Your task to perform on an android device: Empty the shopping cart on amazon. Search for dell alienware on amazon, select the first entry, and add it to the cart. Image 0: 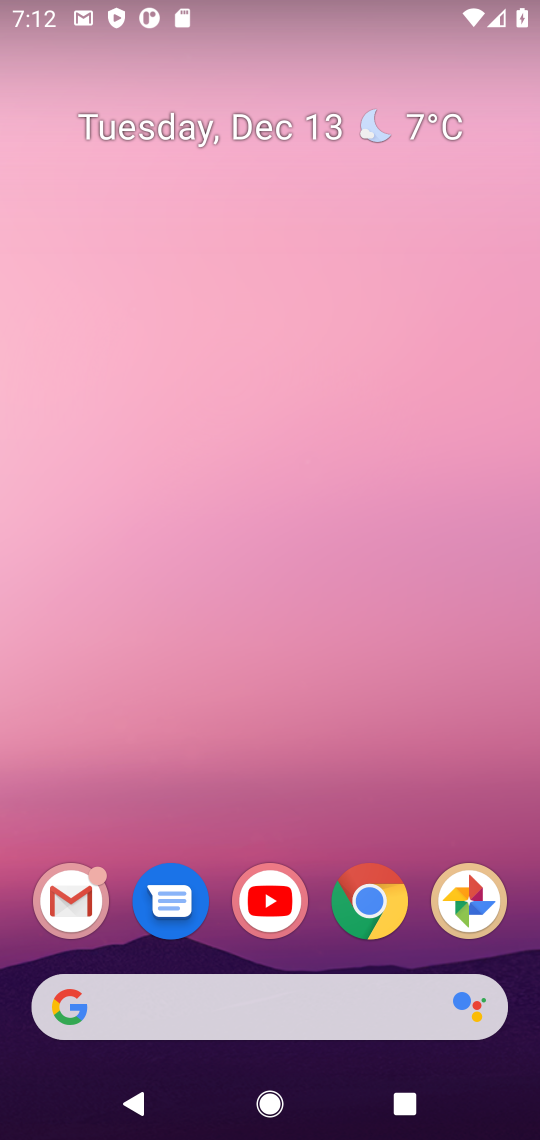
Step 0: click (374, 909)
Your task to perform on an android device: Empty the shopping cart on amazon. Search for dell alienware on amazon, select the first entry, and add it to the cart. Image 1: 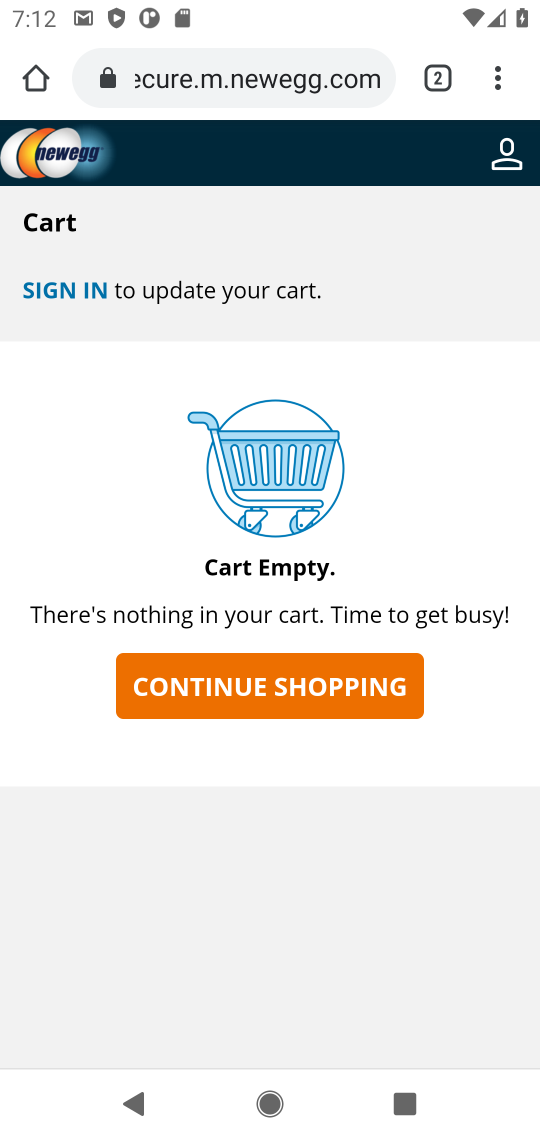
Step 1: click (440, 78)
Your task to perform on an android device: Empty the shopping cart on amazon. Search for dell alienware on amazon, select the first entry, and add it to the cart. Image 2: 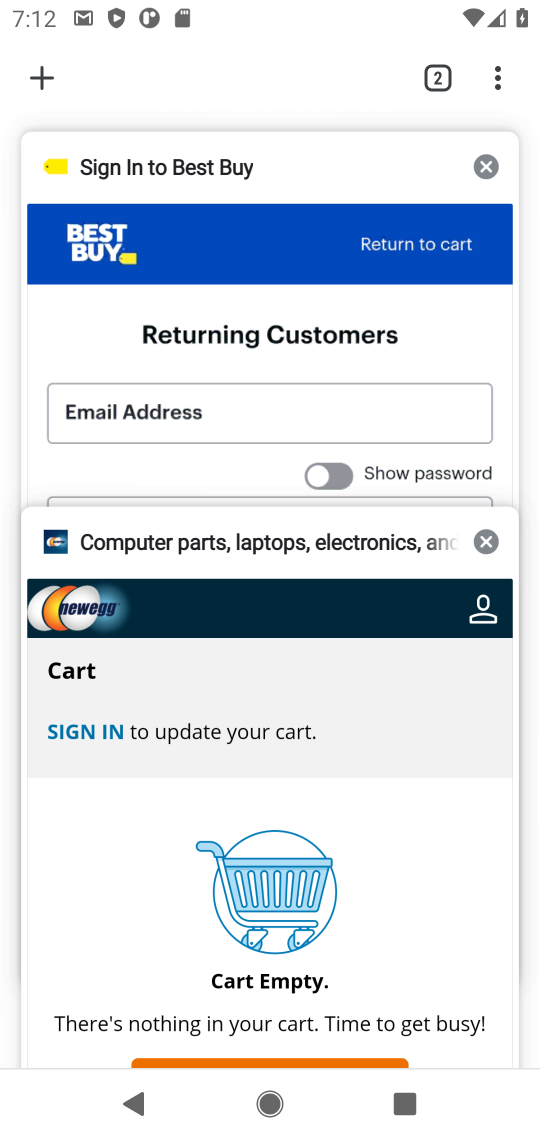
Step 2: click (30, 77)
Your task to perform on an android device: Empty the shopping cart on amazon. Search for dell alienware on amazon, select the first entry, and add it to the cart. Image 3: 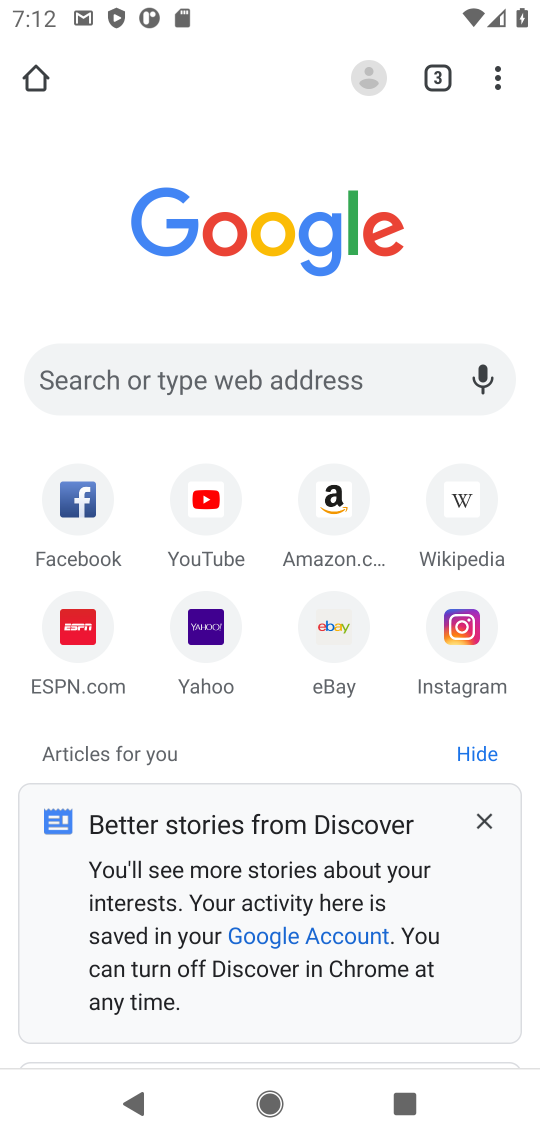
Step 3: click (324, 501)
Your task to perform on an android device: Empty the shopping cart on amazon. Search for dell alienware on amazon, select the first entry, and add it to the cart. Image 4: 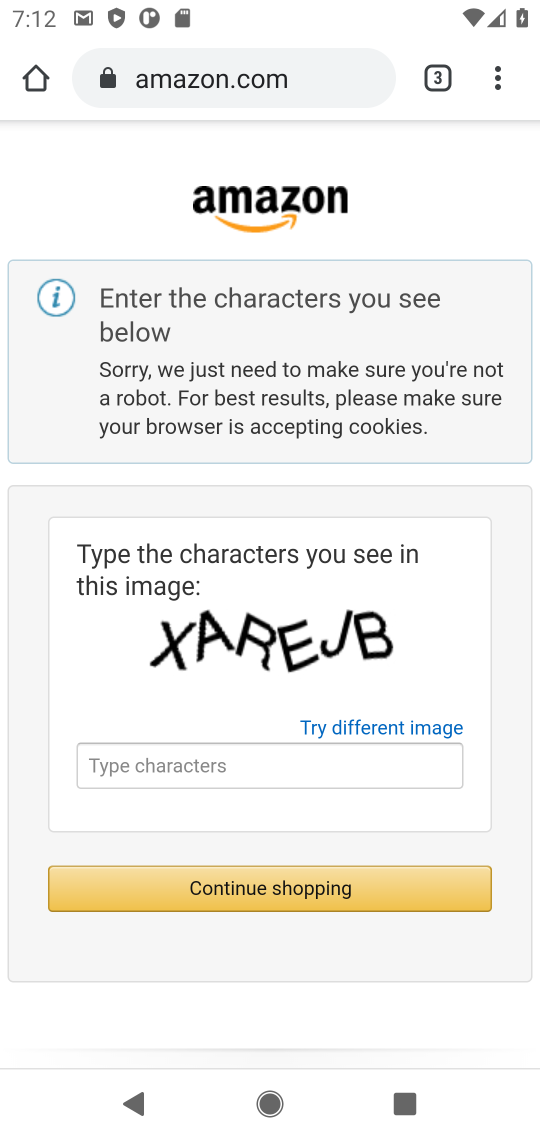
Step 4: click (192, 754)
Your task to perform on an android device: Empty the shopping cart on amazon. Search for dell alienware on amazon, select the first entry, and add it to the cart. Image 5: 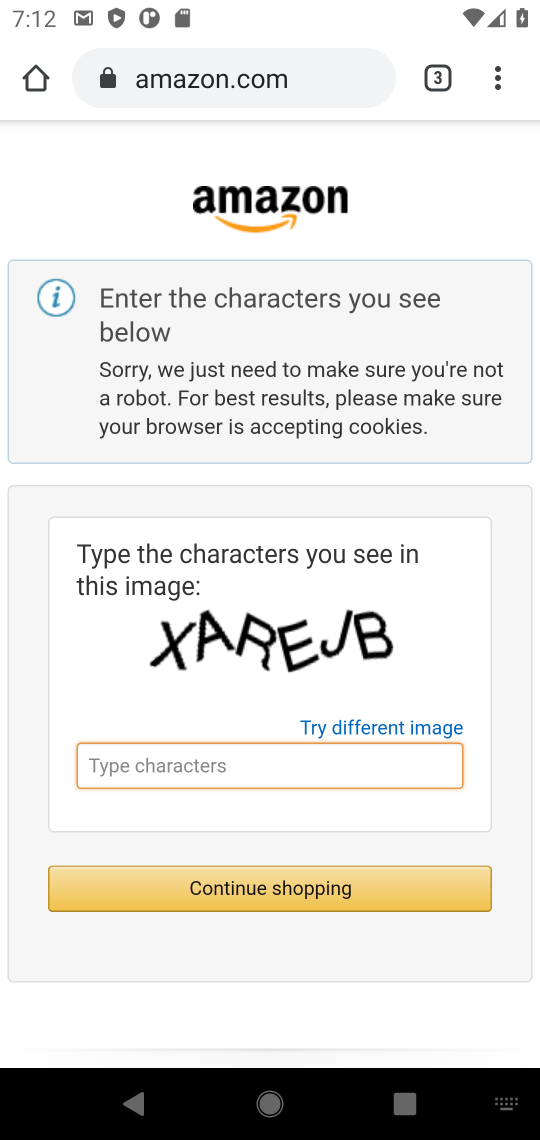
Step 5: type "XAREJB"
Your task to perform on an android device: Empty the shopping cart on amazon. Search for dell alienware on amazon, select the first entry, and add it to the cart. Image 6: 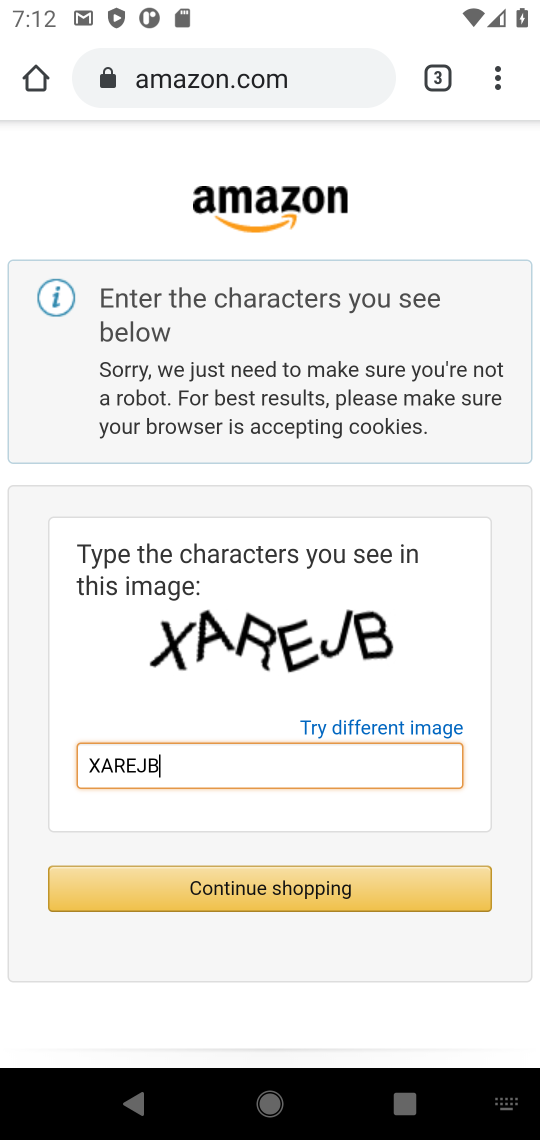
Step 6: click (272, 883)
Your task to perform on an android device: Empty the shopping cart on amazon. Search for dell alienware on amazon, select the first entry, and add it to the cart. Image 7: 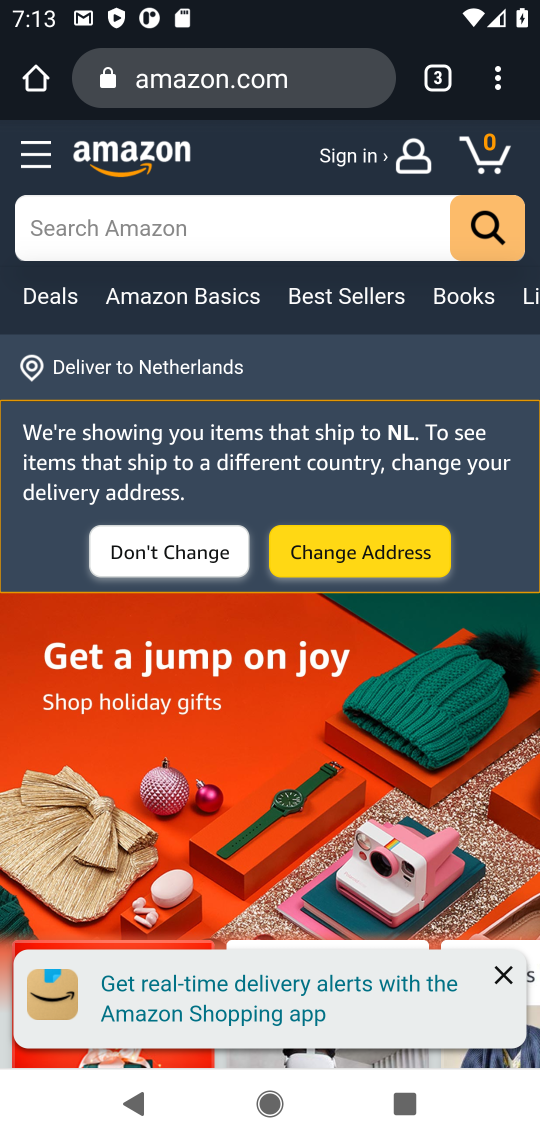
Step 7: click (206, 233)
Your task to perform on an android device: Empty the shopping cart on amazon. Search for dell alienware on amazon, select the first entry, and add it to the cart. Image 8: 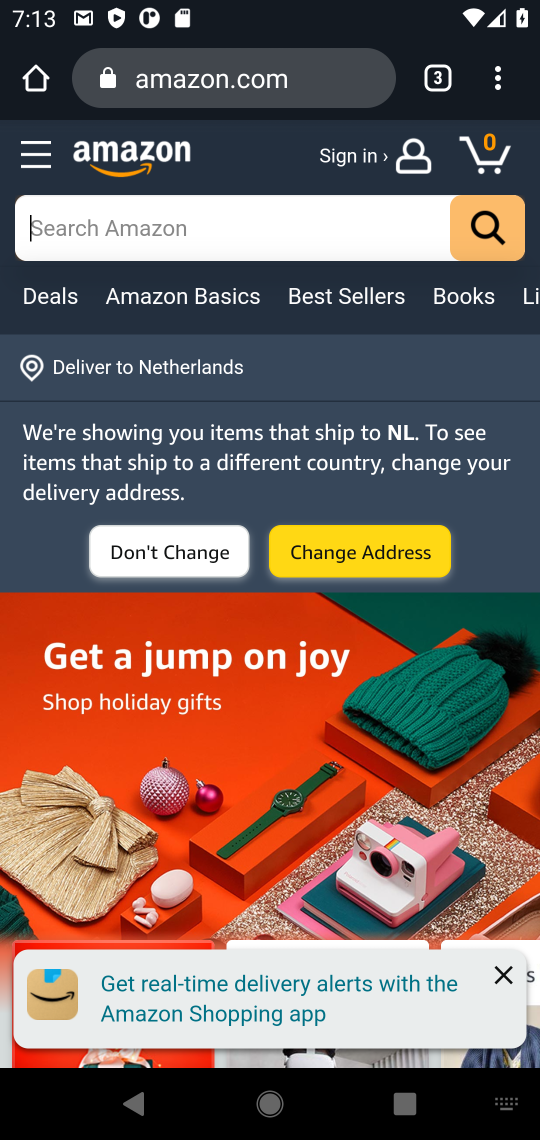
Step 8: type "dell alienware"
Your task to perform on an android device: Empty the shopping cart on amazon. Search for dell alienware on amazon, select the first entry, and add it to the cart. Image 9: 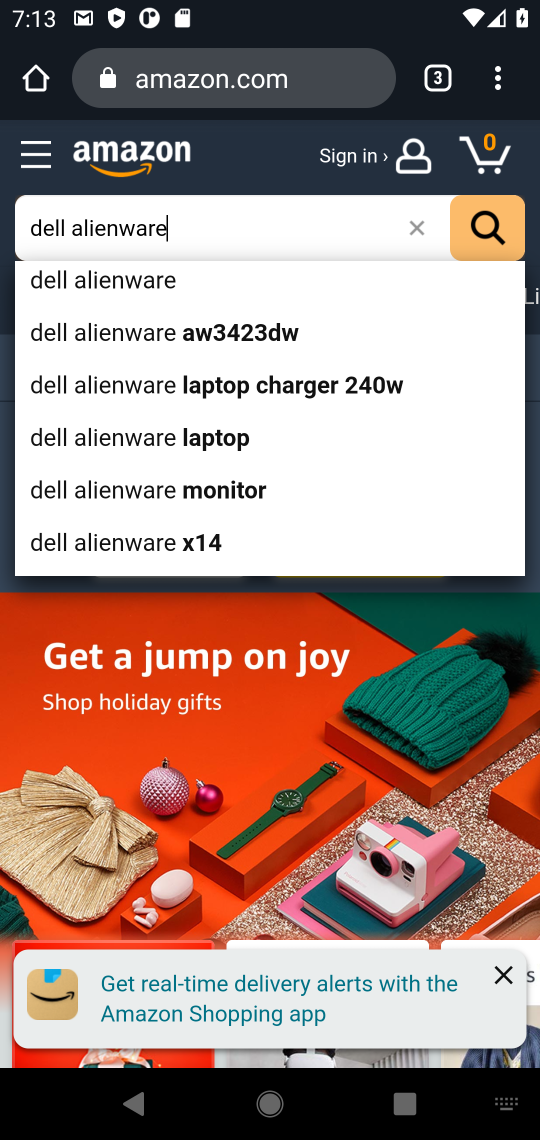
Step 9: click (114, 287)
Your task to perform on an android device: Empty the shopping cart on amazon. Search for dell alienware on amazon, select the first entry, and add it to the cart. Image 10: 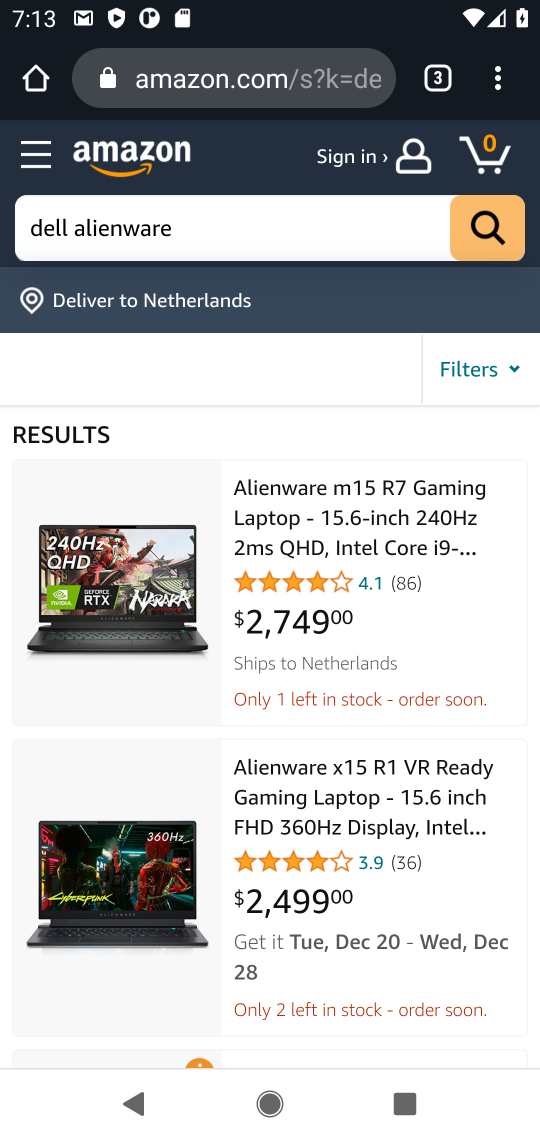
Step 10: click (387, 493)
Your task to perform on an android device: Empty the shopping cart on amazon. Search for dell alienware on amazon, select the first entry, and add it to the cart. Image 11: 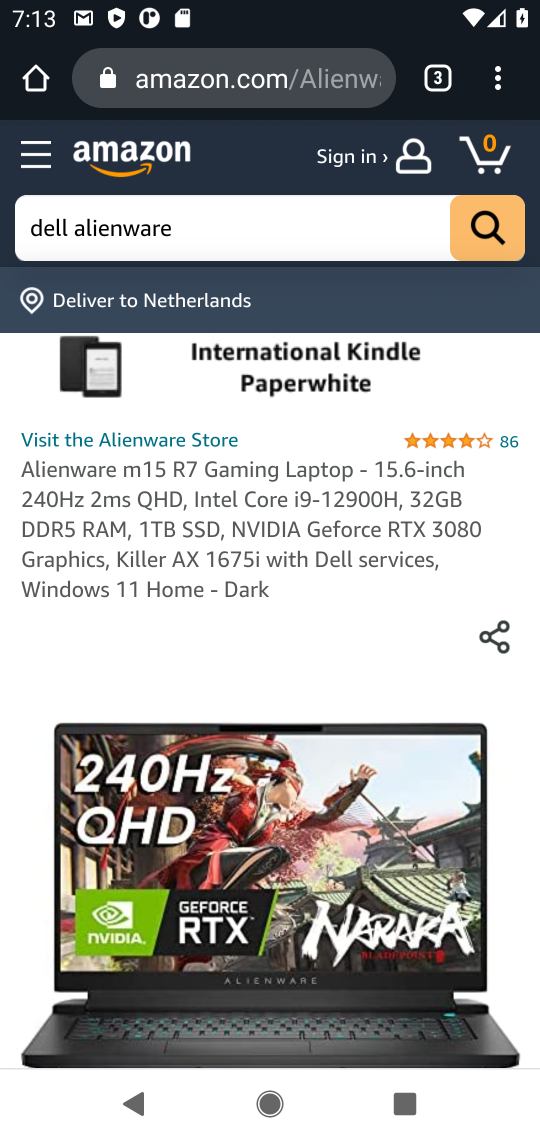
Step 11: drag from (312, 645) to (392, 31)
Your task to perform on an android device: Empty the shopping cart on amazon. Search for dell alienware on amazon, select the first entry, and add it to the cart. Image 12: 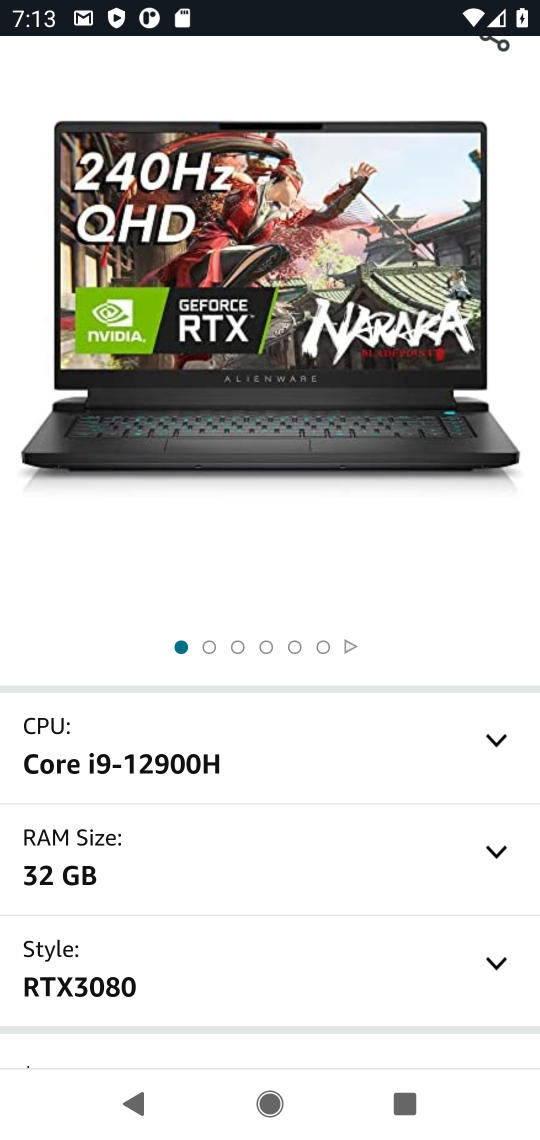
Step 12: drag from (164, 967) to (178, 395)
Your task to perform on an android device: Empty the shopping cart on amazon. Search for dell alienware on amazon, select the first entry, and add it to the cart. Image 13: 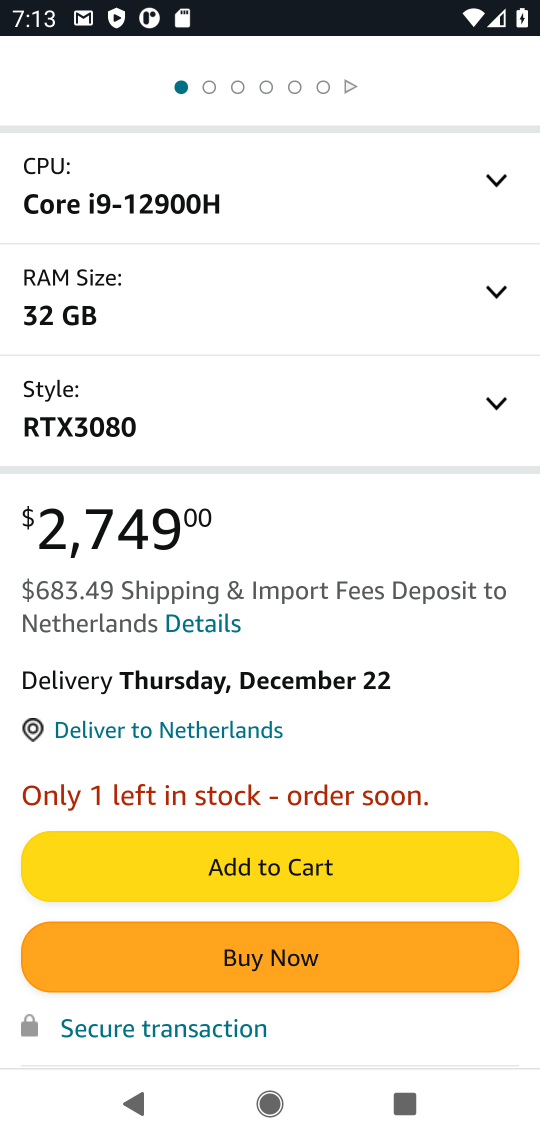
Step 13: click (216, 857)
Your task to perform on an android device: Empty the shopping cart on amazon. Search for dell alienware on amazon, select the first entry, and add it to the cart. Image 14: 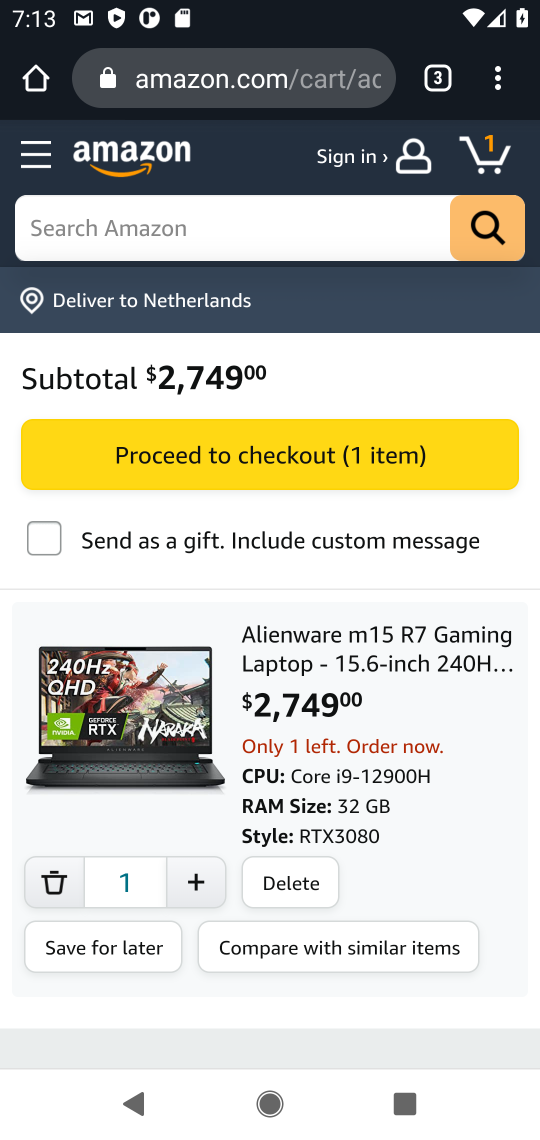
Step 14: task complete